Your task to perform on an android device: Go to privacy settings Image 0: 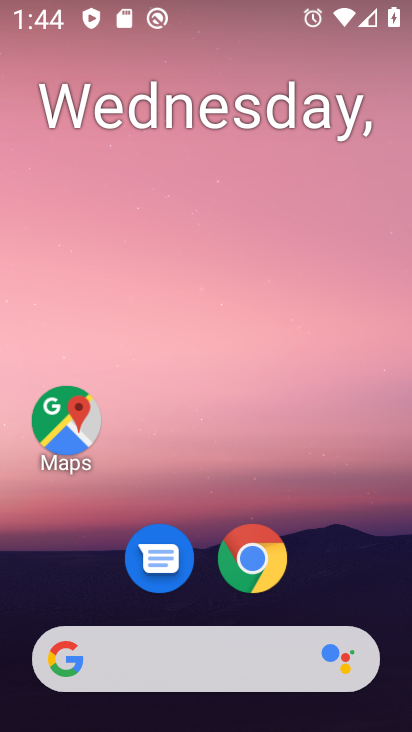
Step 0: drag from (385, 574) to (257, 170)
Your task to perform on an android device: Go to privacy settings Image 1: 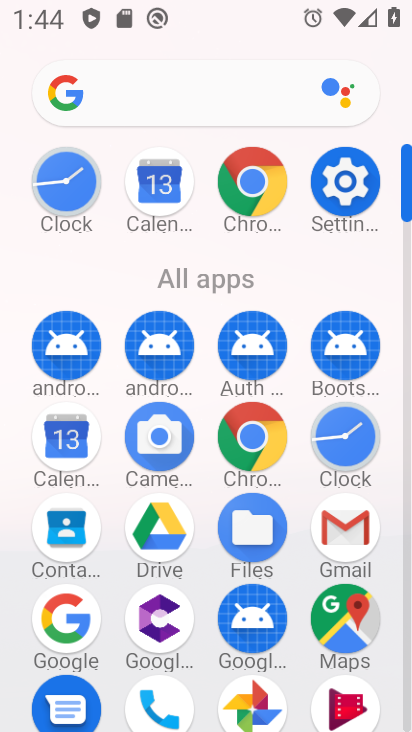
Step 1: click (342, 206)
Your task to perform on an android device: Go to privacy settings Image 2: 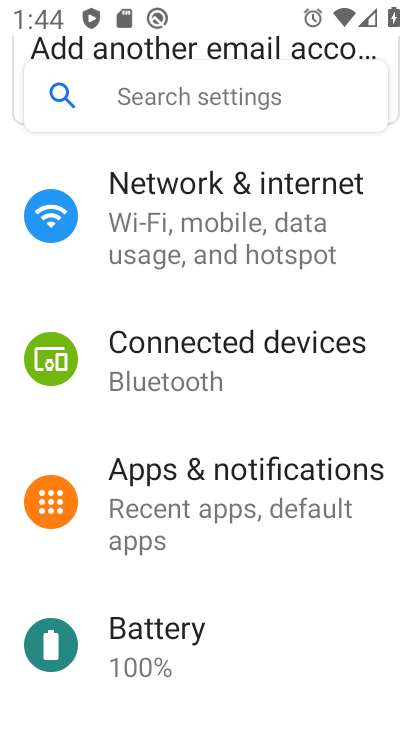
Step 2: drag from (270, 571) to (194, 105)
Your task to perform on an android device: Go to privacy settings Image 3: 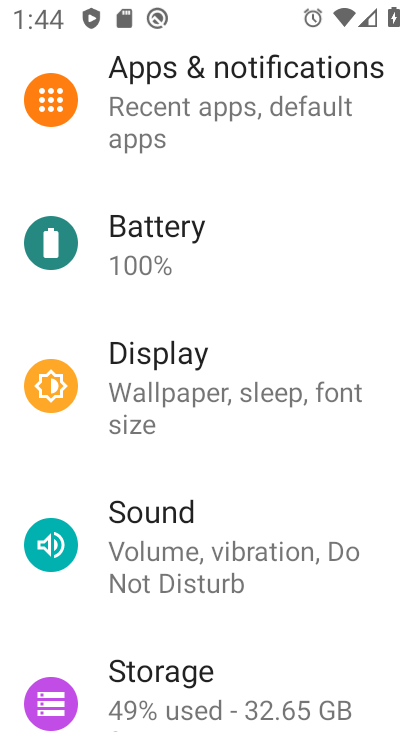
Step 3: drag from (247, 614) to (216, 156)
Your task to perform on an android device: Go to privacy settings Image 4: 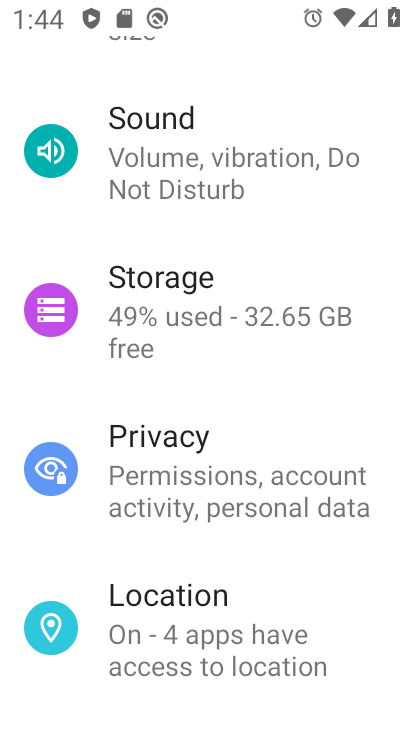
Step 4: click (253, 479)
Your task to perform on an android device: Go to privacy settings Image 5: 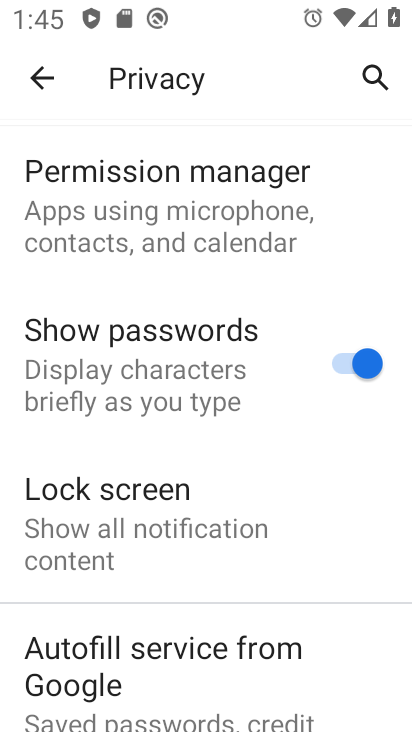
Step 5: task complete